Your task to perform on an android device: allow notifications from all sites in the chrome app Image 0: 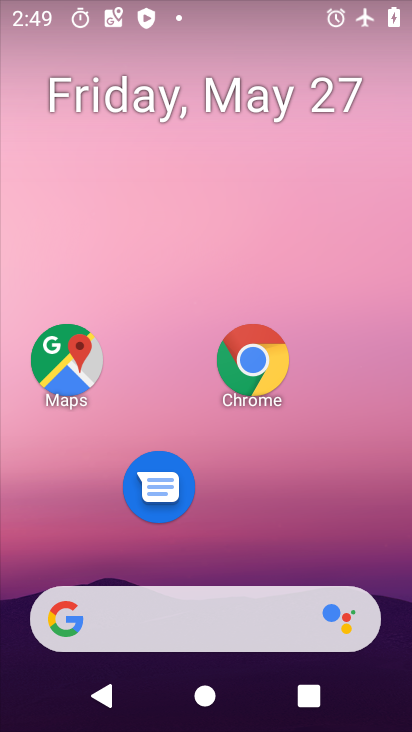
Step 0: drag from (288, 511) to (295, 79)
Your task to perform on an android device: allow notifications from all sites in the chrome app Image 1: 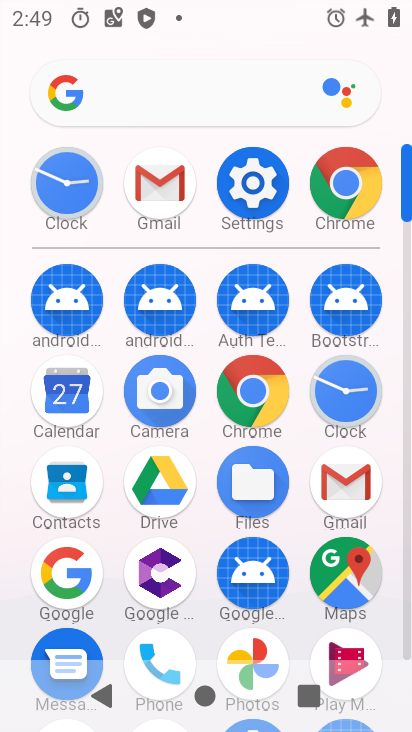
Step 1: drag from (199, 561) to (255, 266)
Your task to perform on an android device: allow notifications from all sites in the chrome app Image 2: 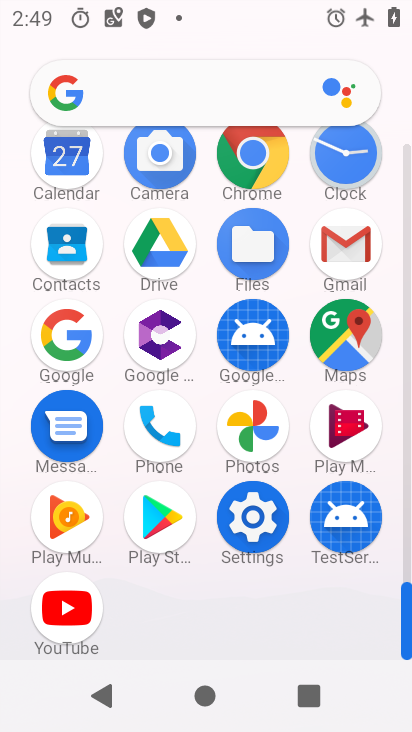
Step 2: drag from (197, 253) to (196, 373)
Your task to perform on an android device: allow notifications from all sites in the chrome app Image 3: 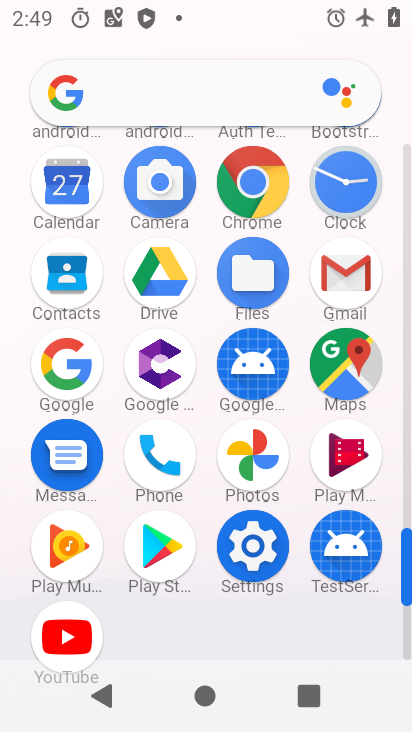
Step 3: drag from (195, 322) to (183, 465)
Your task to perform on an android device: allow notifications from all sites in the chrome app Image 4: 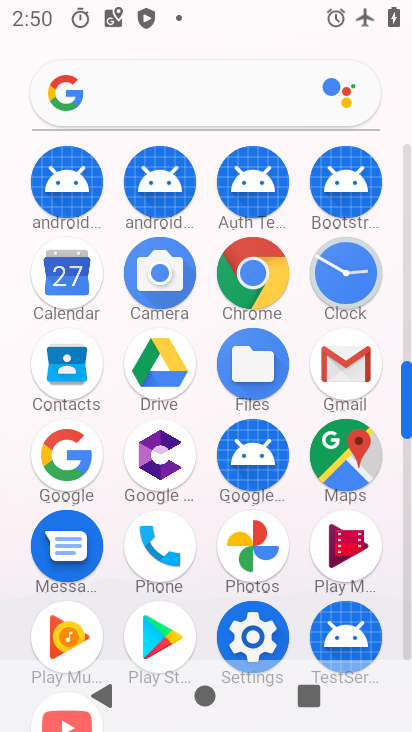
Step 4: click (258, 273)
Your task to perform on an android device: allow notifications from all sites in the chrome app Image 5: 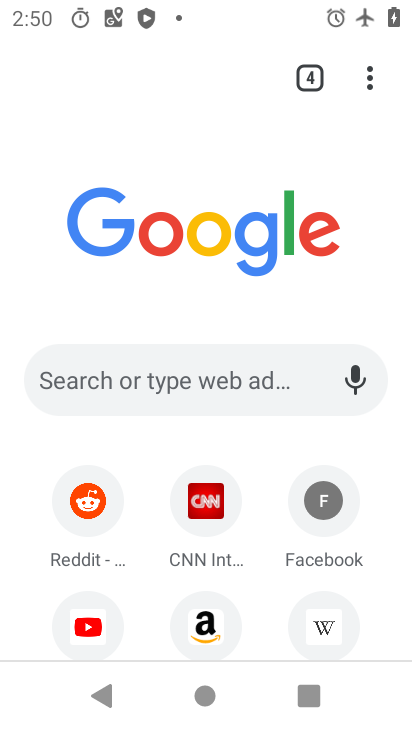
Step 5: click (365, 75)
Your task to perform on an android device: allow notifications from all sites in the chrome app Image 6: 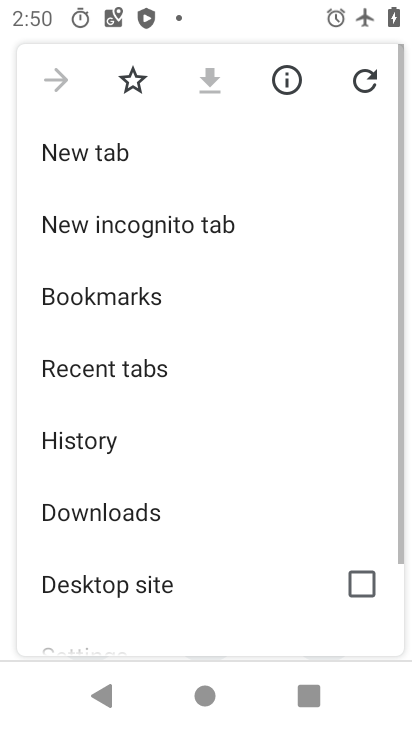
Step 6: drag from (261, 483) to (272, 150)
Your task to perform on an android device: allow notifications from all sites in the chrome app Image 7: 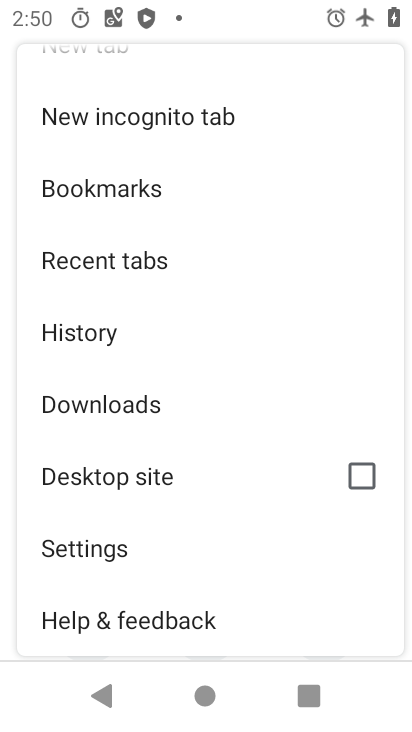
Step 7: click (126, 557)
Your task to perform on an android device: allow notifications from all sites in the chrome app Image 8: 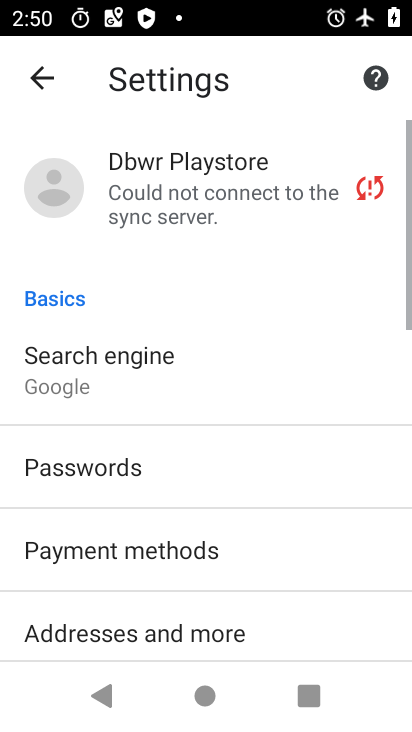
Step 8: drag from (272, 580) to (333, 31)
Your task to perform on an android device: allow notifications from all sites in the chrome app Image 9: 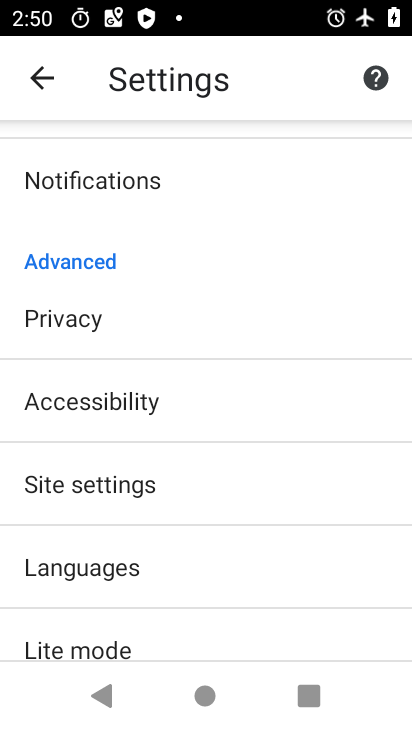
Step 9: click (87, 483)
Your task to perform on an android device: allow notifications from all sites in the chrome app Image 10: 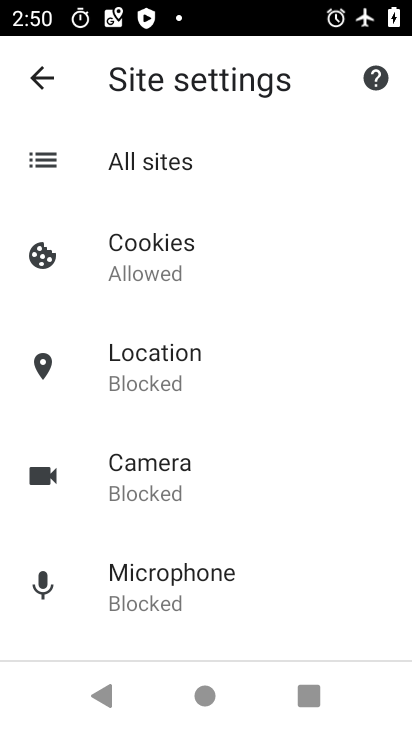
Step 10: drag from (252, 529) to (269, 243)
Your task to perform on an android device: allow notifications from all sites in the chrome app Image 11: 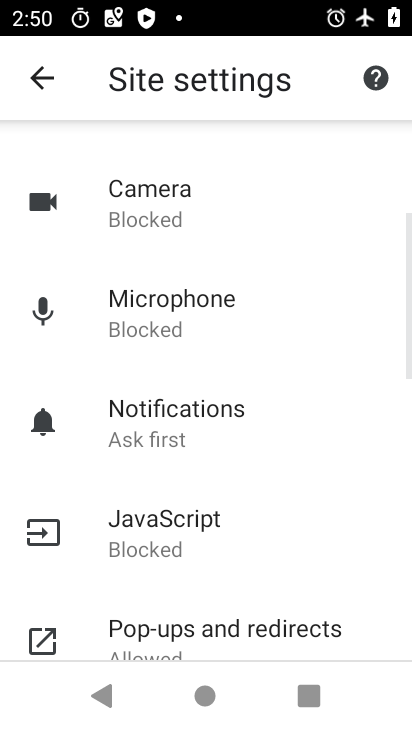
Step 11: click (187, 434)
Your task to perform on an android device: allow notifications from all sites in the chrome app Image 12: 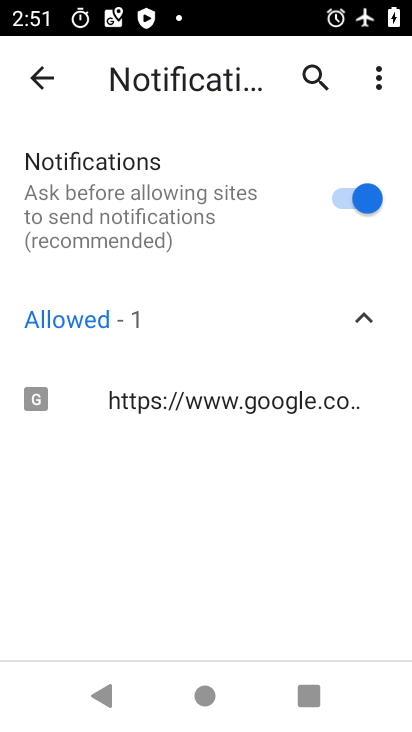
Step 12: task complete